Your task to perform on an android device: Open accessibility settings Image 0: 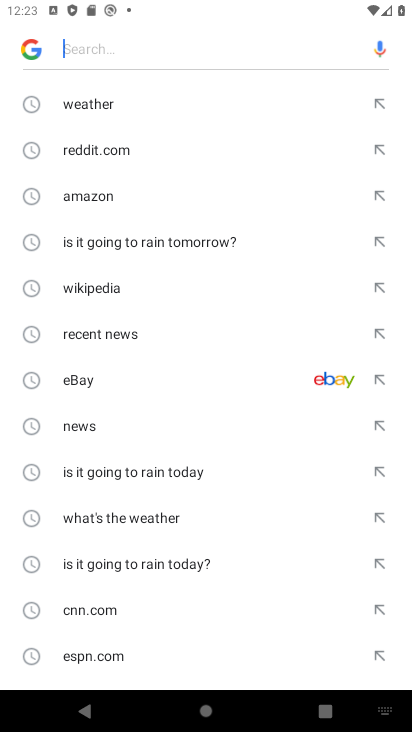
Step 0: press home button
Your task to perform on an android device: Open accessibility settings Image 1: 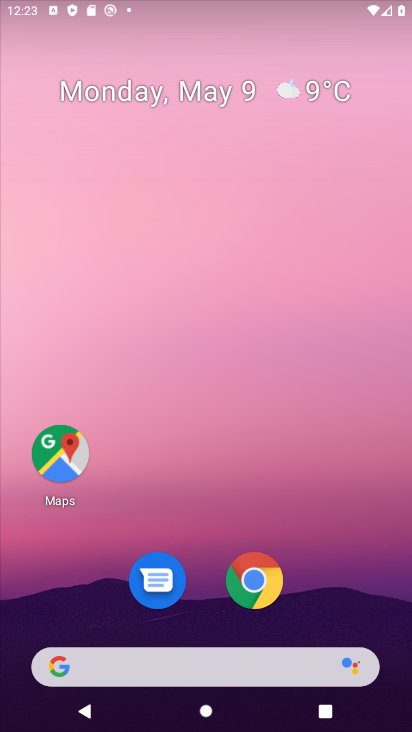
Step 1: drag from (345, 572) to (278, 8)
Your task to perform on an android device: Open accessibility settings Image 2: 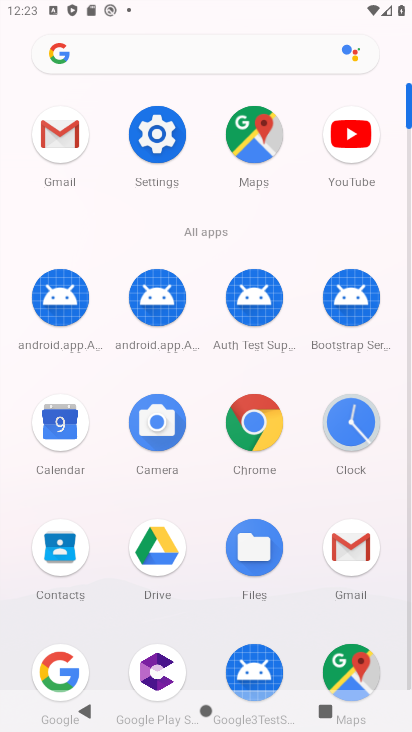
Step 2: click (160, 137)
Your task to perform on an android device: Open accessibility settings Image 3: 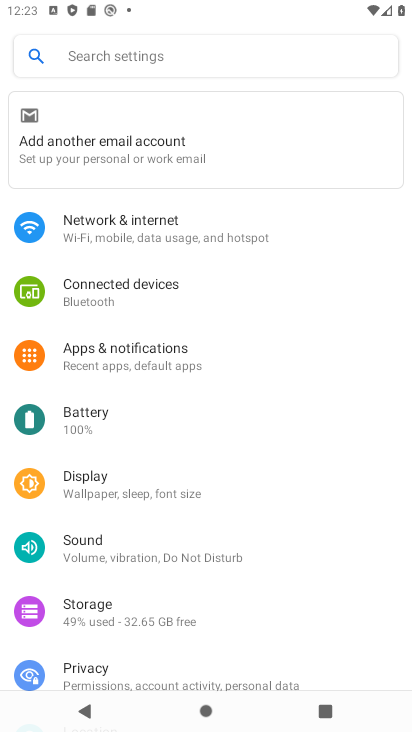
Step 3: drag from (244, 601) to (197, 122)
Your task to perform on an android device: Open accessibility settings Image 4: 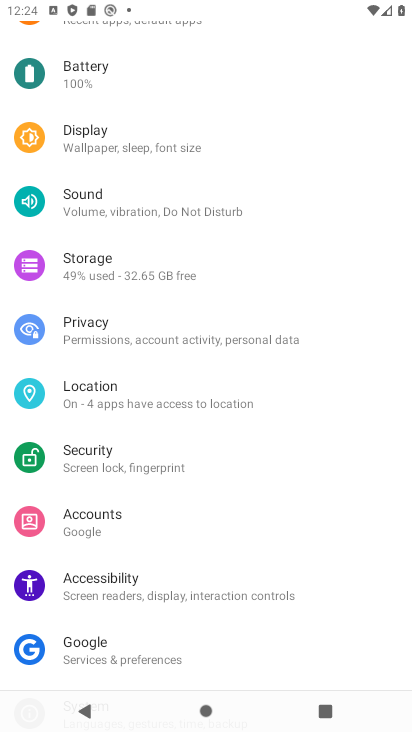
Step 4: click (137, 589)
Your task to perform on an android device: Open accessibility settings Image 5: 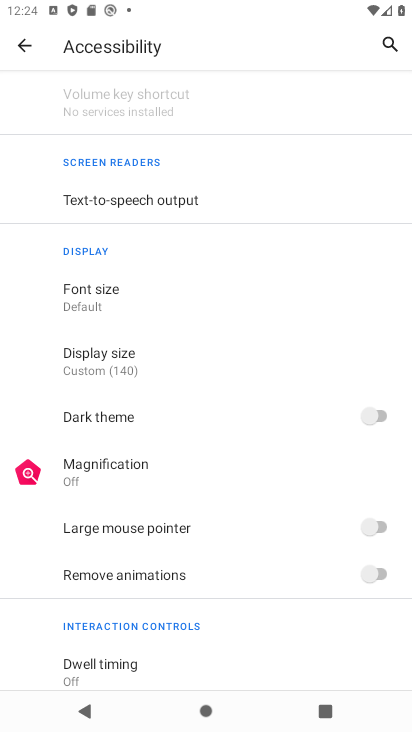
Step 5: task complete